Your task to perform on an android device: open a new tab in the chrome app Image 0: 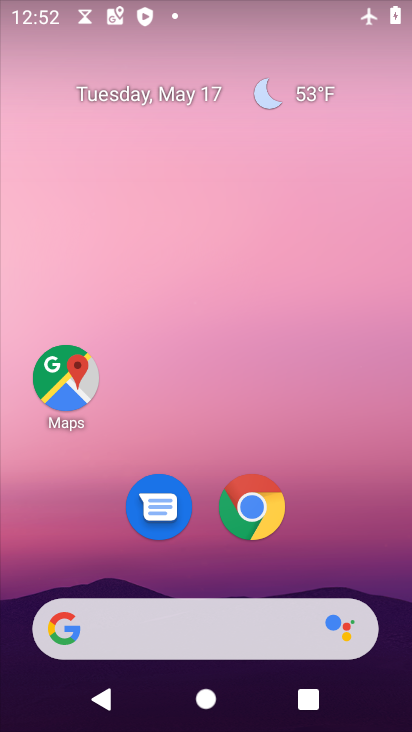
Step 0: click (252, 512)
Your task to perform on an android device: open a new tab in the chrome app Image 1: 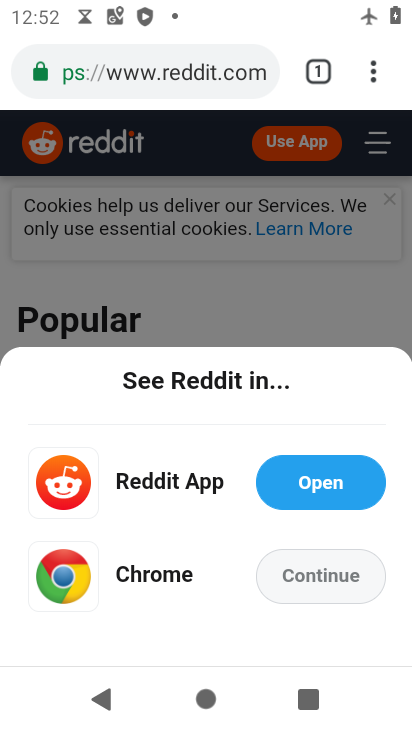
Step 1: click (367, 77)
Your task to perform on an android device: open a new tab in the chrome app Image 2: 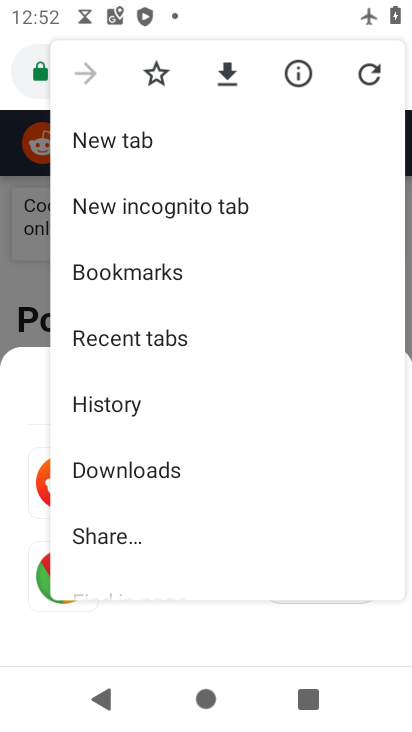
Step 2: click (276, 533)
Your task to perform on an android device: open a new tab in the chrome app Image 3: 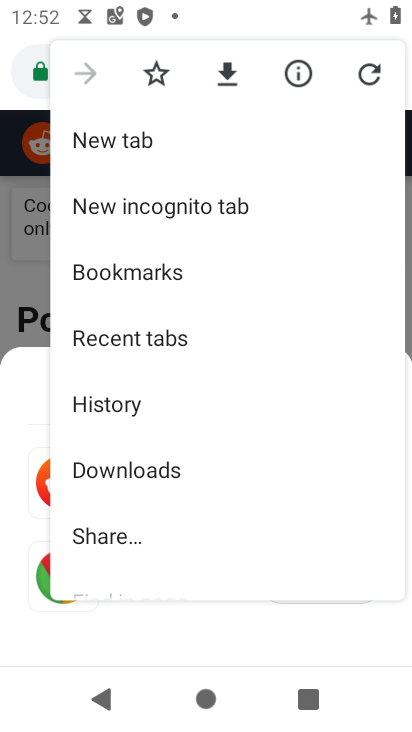
Step 3: click (247, 137)
Your task to perform on an android device: open a new tab in the chrome app Image 4: 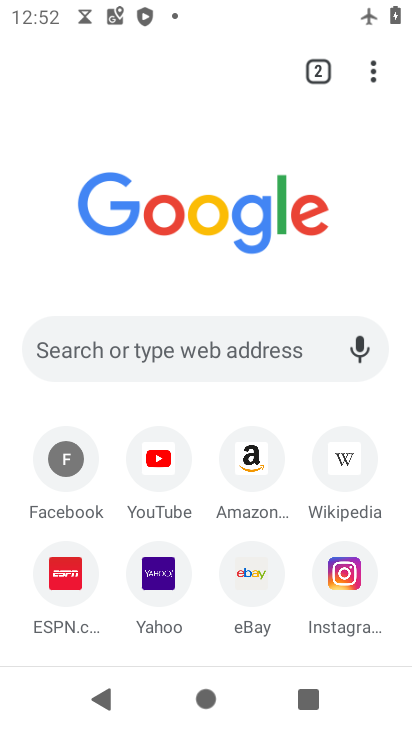
Step 4: task complete